Your task to perform on an android device: change notifications settings Image 0: 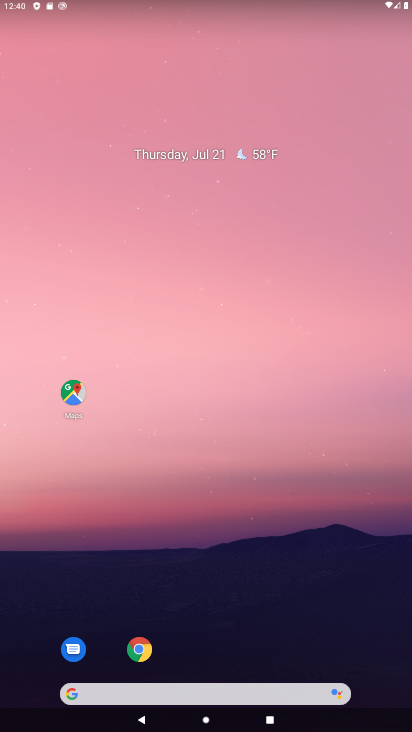
Step 0: drag from (267, 634) to (267, 29)
Your task to perform on an android device: change notifications settings Image 1: 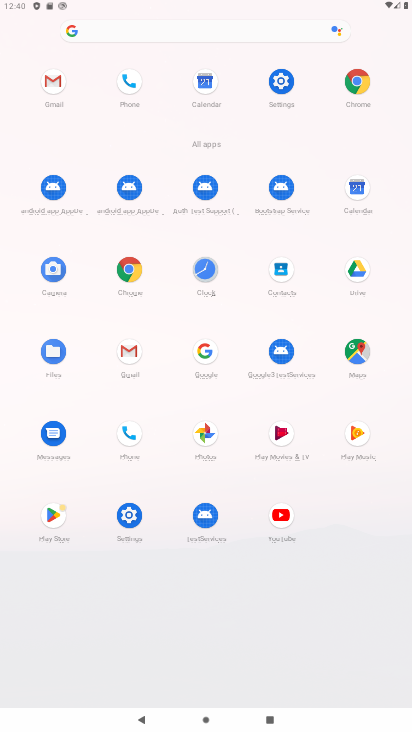
Step 1: click (280, 92)
Your task to perform on an android device: change notifications settings Image 2: 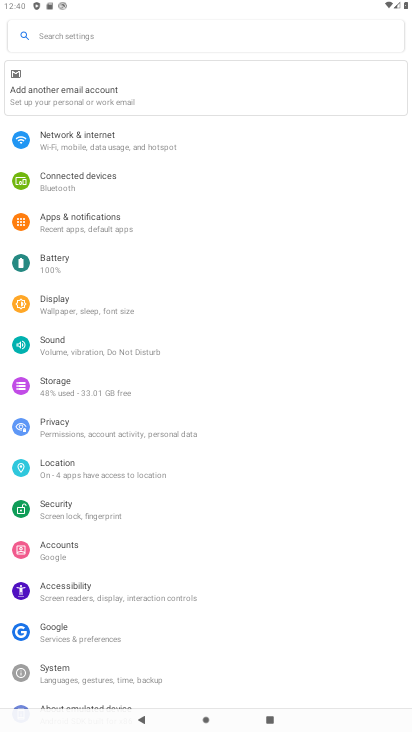
Step 2: task complete